Your task to perform on an android device: Go to Wikipedia Image 0: 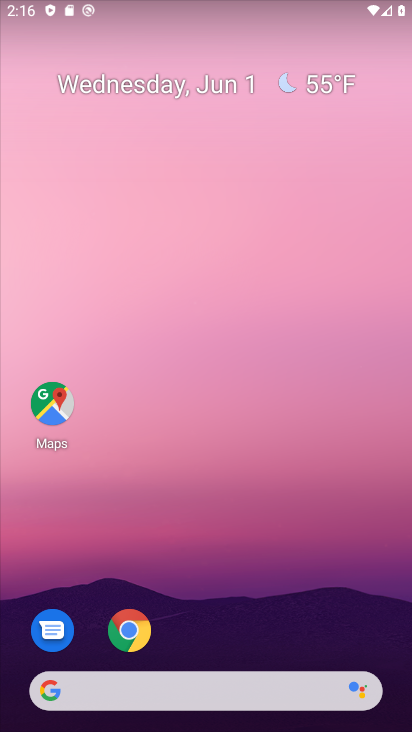
Step 0: click (123, 637)
Your task to perform on an android device: Go to Wikipedia Image 1: 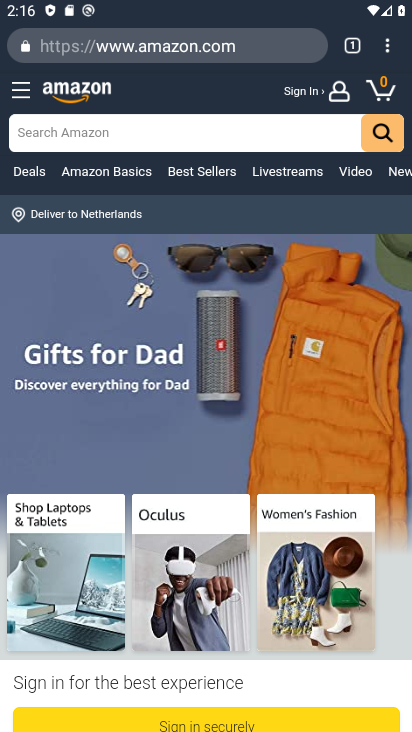
Step 1: drag from (382, 27) to (348, 89)
Your task to perform on an android device: Go to Wikipedia Image 2: 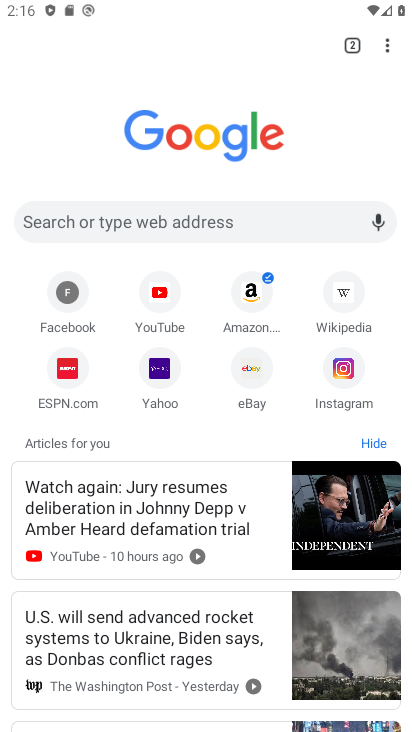
Step 2: click (310, 290)
Your task to perform on an android device: Go to Wikipedia Image 3: 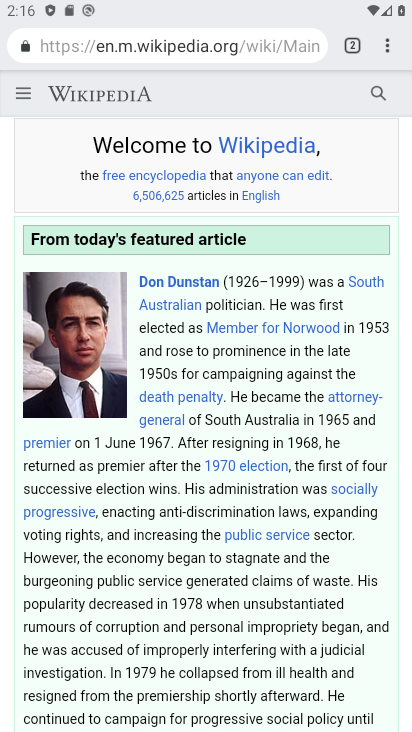
Step 3: task complete